Your task to perform on an android device: Open the web browser Image 0: 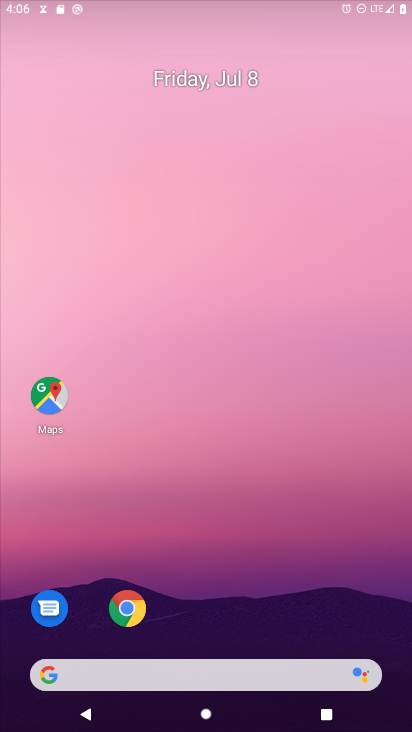
Step 0: drag from (337, 643) to (336, 126)
Your task to perform on an android device: Open the web browser Image 1: 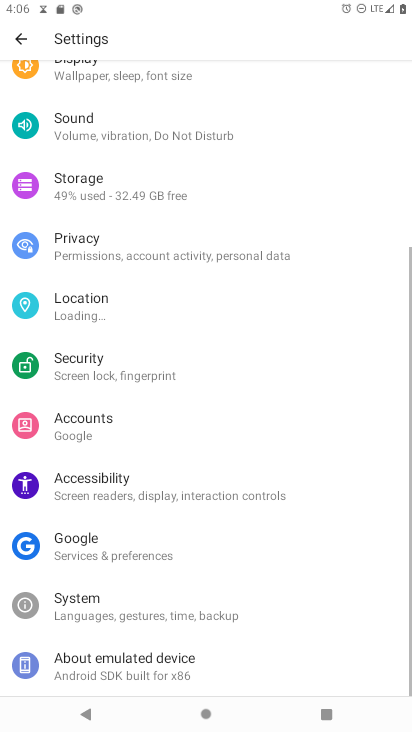
Step 1: press home button
Your task to perform on an android device: Open the web browser Image 2: 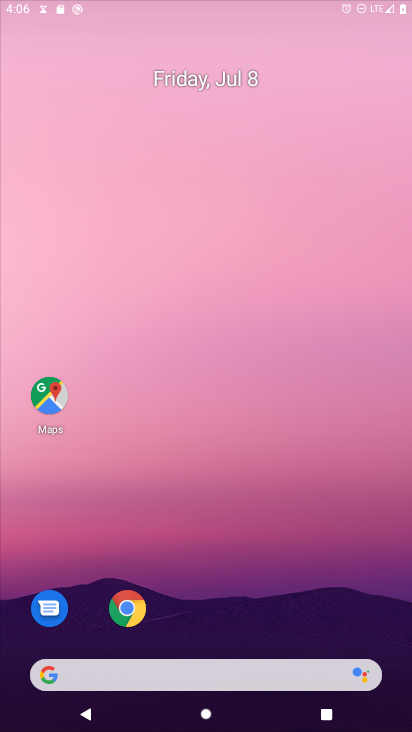
Step 2: drag from (324, 636) to (355, 85)
Your task to perform on an android device: Open the web browser Image 3: 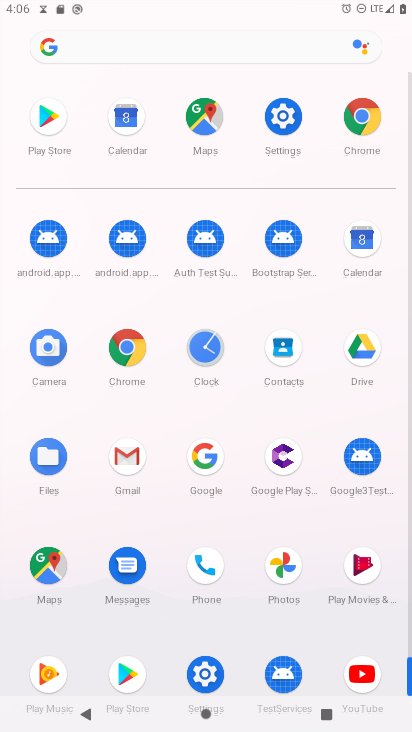
Step 3: click (137, 339)
Your task to perform on an android device: Open the web browser Image 4: 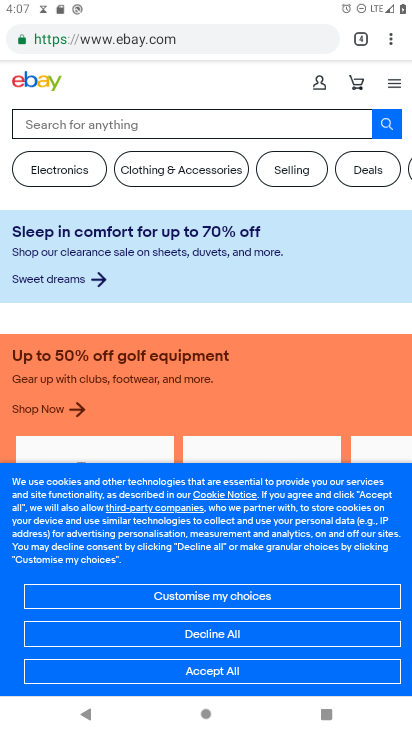
Step 4: drag from (389, 35) to (362, 68)
Your task to perform on an android device: Open the web browser Image 5: 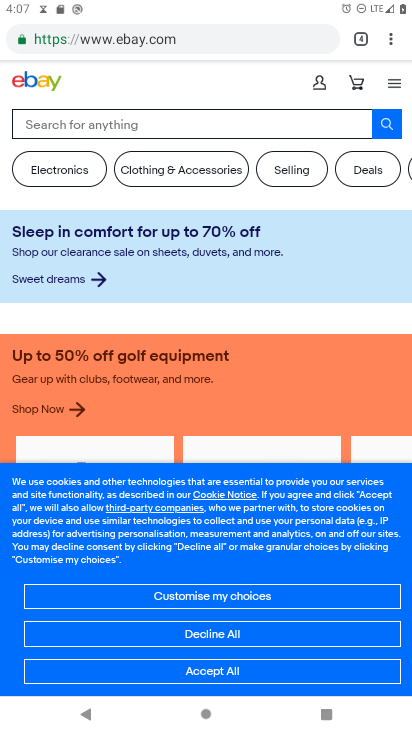
Step 5: click (333, 79)
Your task to perform on an android device: Open the web browser Image 6: 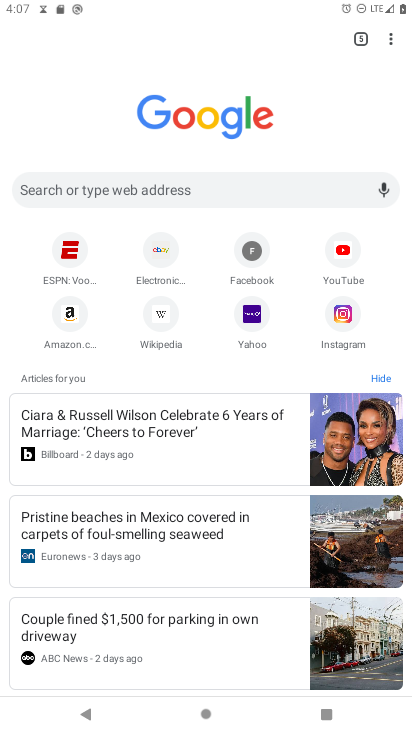
Step 6: task complete